Your task to perform on an android device: Open wifi settings Image 0: 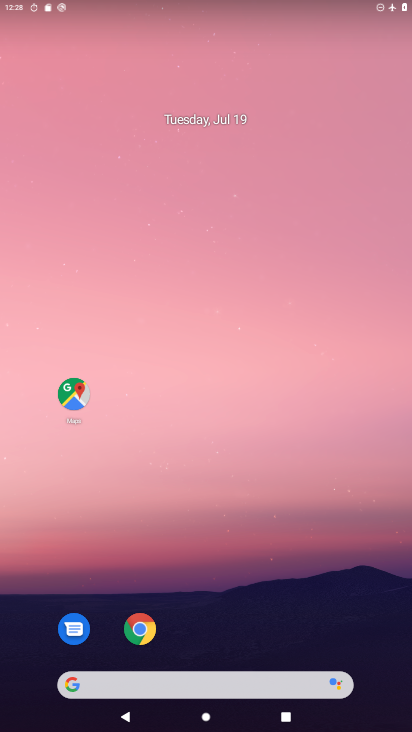
Step 0: drag from (278, 629) to (241, 71)
Your task to perform on an android device: Open wifi settings Image 1: 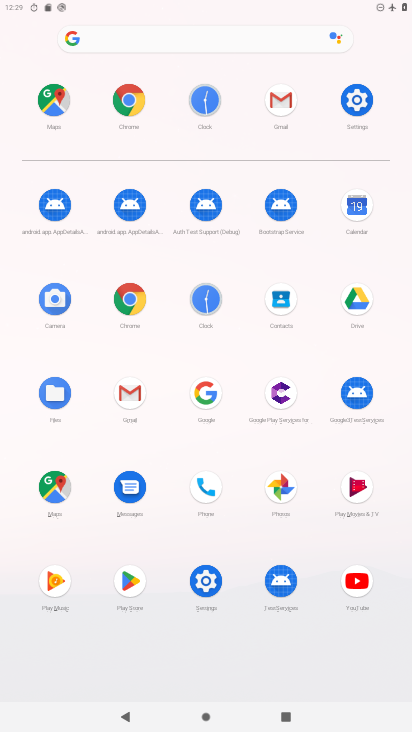
Step 1: click (355, 105)
Your task to perform on an android device: Open wifi settings Image 2: 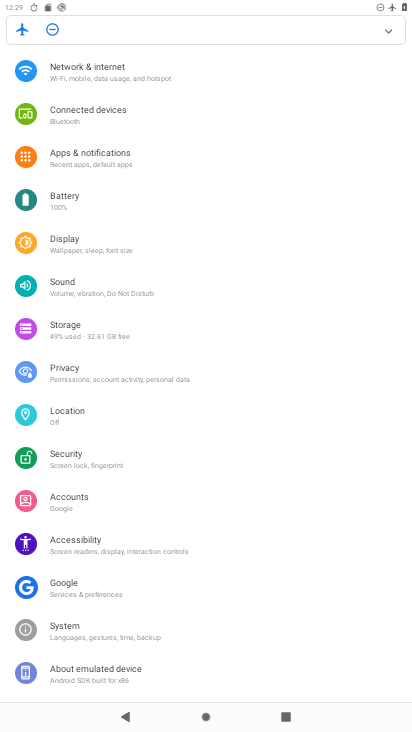
Step 2: click (106, 82)
Your task to perform on an android device: Open wifi settings Image 3: 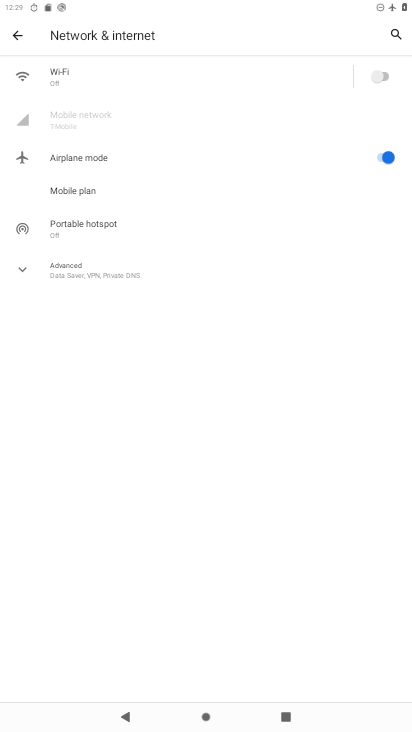
Step 3: click (218, 71)
Your task to perform on an android device: Open wifi settings Image 4: 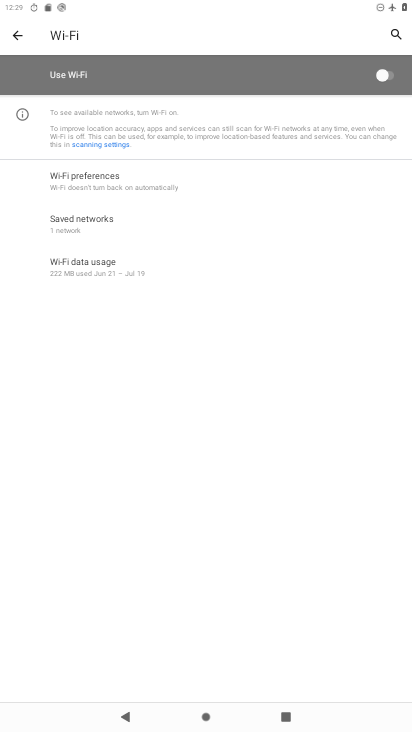
Step 4: click (374, 68)
Your task to perform on an android device: Open wifi settings Image 5: 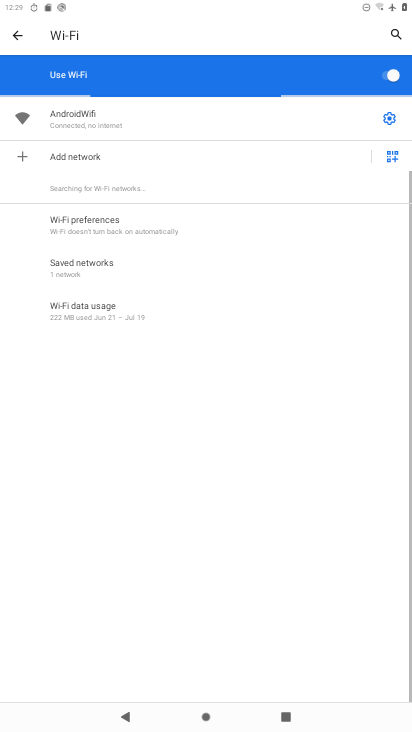
Step 5: click (396, 120)
Your task to perform on an android device: Open wifi settings Image 6: 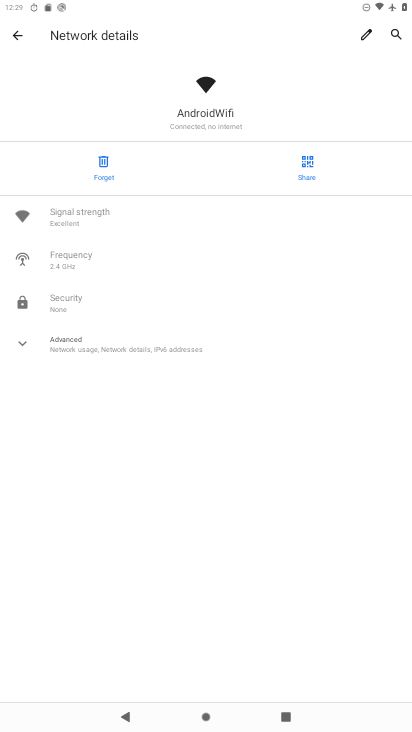
Step 6: task complete